Your task to perform on an android device: Find coffee shops on Maps Image 0: 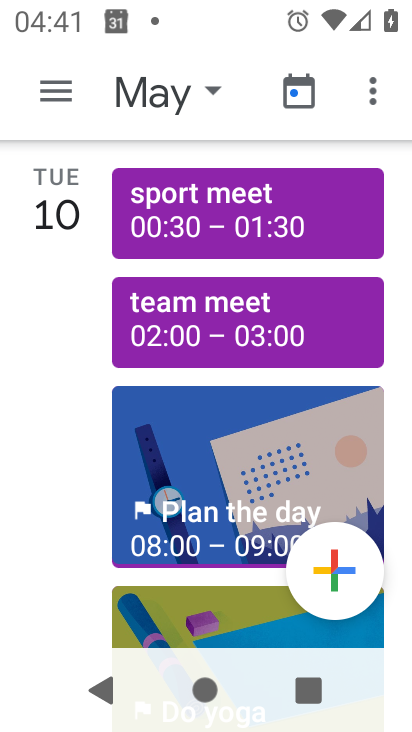
Step 0: press home button
Your task to perform on an android device: Find coffee shops on Maps Image 1: 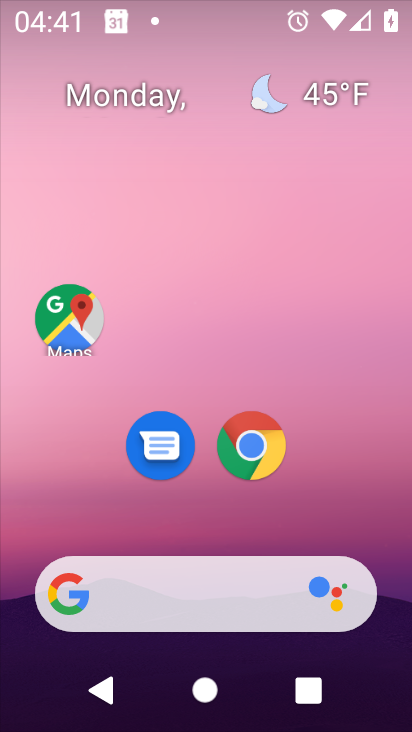
Step 1: click (65, 318)
Your task to perform on an android device: Find coffee shops on Maps Image 2: 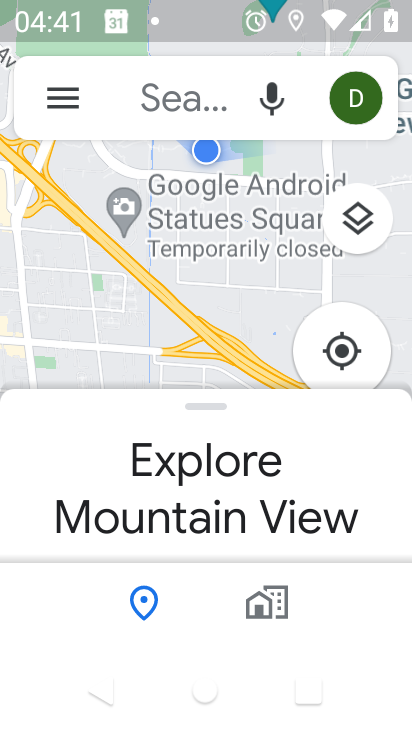
Step 2: click (186, 107)
Your task to perform on an android device: Find coffee shops on Maps Image 3: 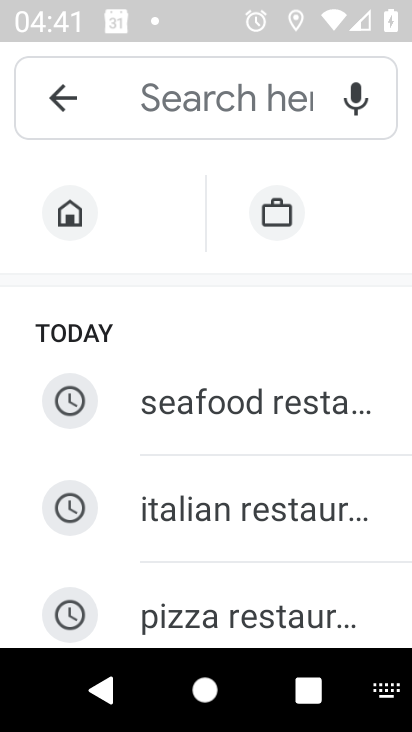
Step 3: type "coffee shopps"
Your task to perform on an android device: Find coffee shops on Maps Image 4: 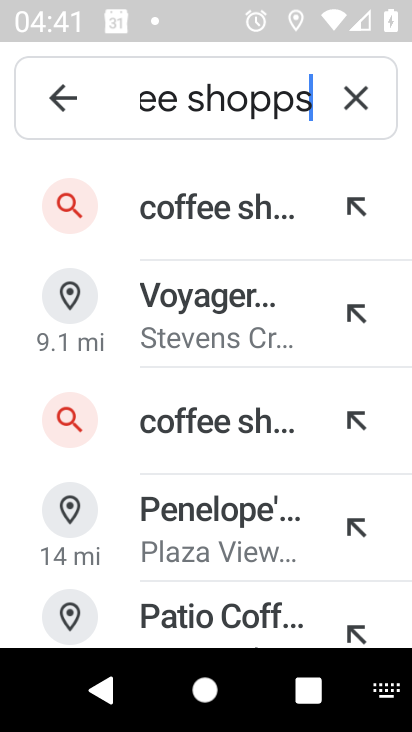
Step 4: click (248, 209)
Your task to perform on an android device: Find coffee shops on Maps Image 5: 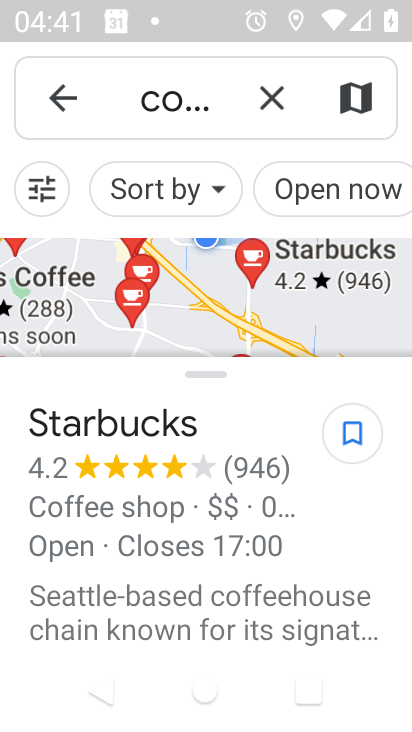
Step 5: task complete